Your task to perform on an android device: Open calendar and show me the third week of next month Image 0: 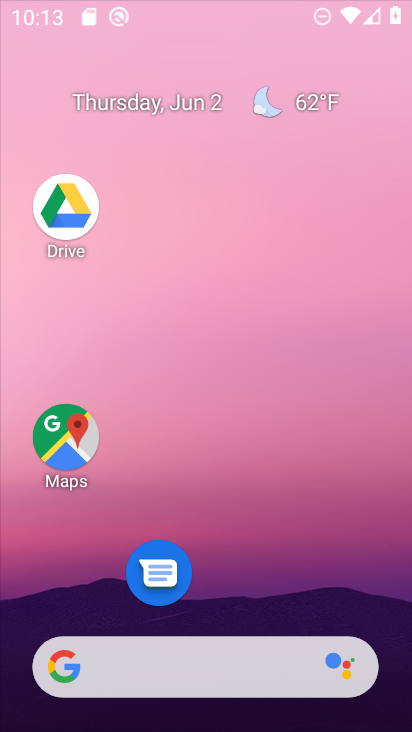
Step 0: click (211, 595)
Your task to perform on an android device: Open calendar and show me the third week of next month Image 1: 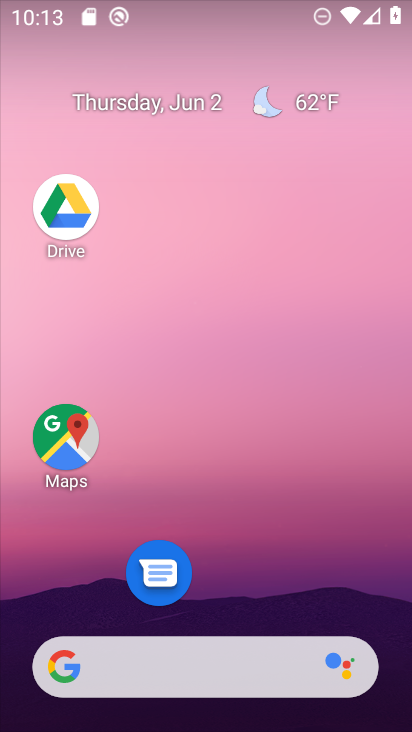
Step 1: drag from (233, 637) to (181, 51)
Your task to perform on an android device: Open calendar and show me the third week of next month Image 2: 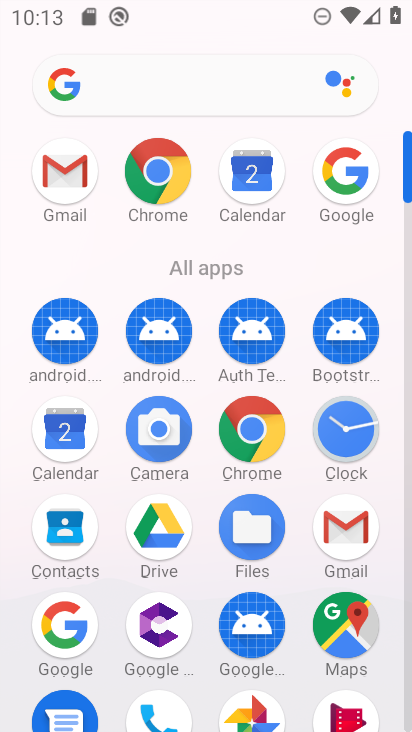
Step 2: click (66, 418)
Your task to perform on an android device: Open calendar and show me the third week of next month Image 3: 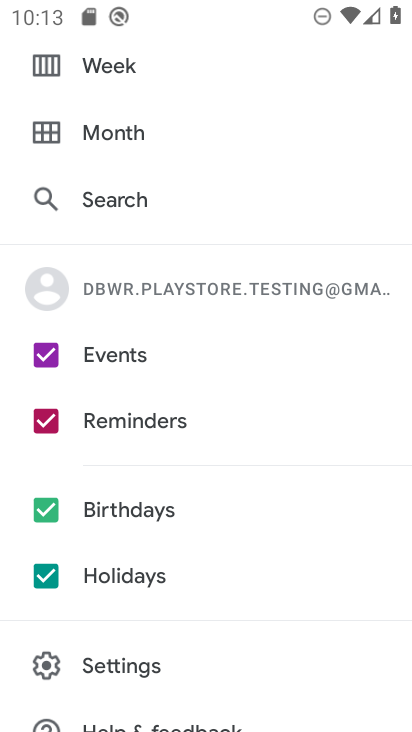
Step 3: press back button
Your task to perform on an android device: Open calendar and show me the third week of next month Image 4: 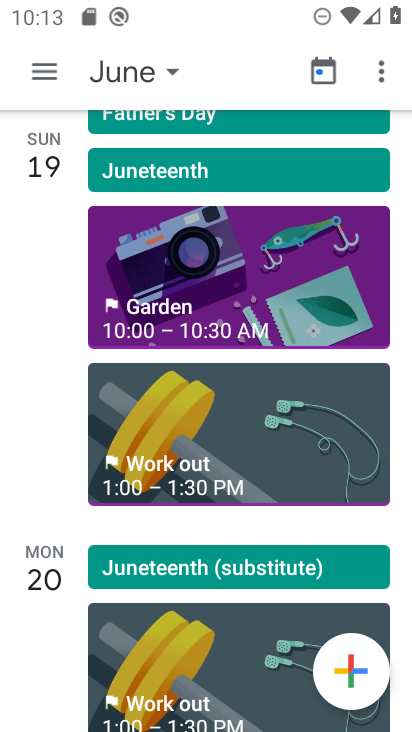
Step 4: click (44, 64)
Your task to perform on an android device: Open calendar and show me the third week of next month Image 5: 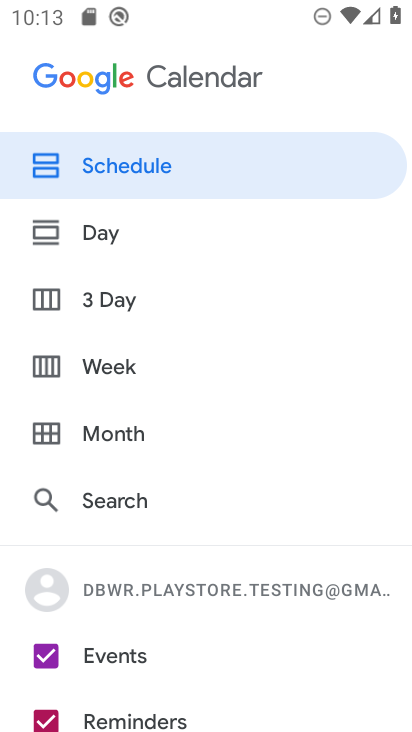
Step 5: click (120, 346)
Your task to perform on an android device: Open calendar and show me the third week of next month Image 6: 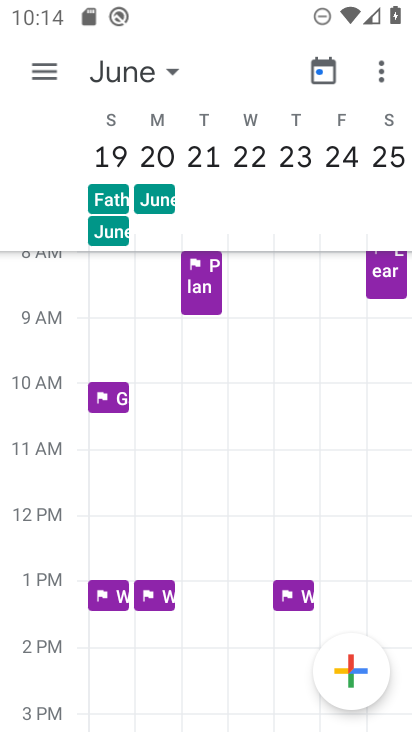
Step 6: task complete